Your task to perform on an android device: Clear the cart on target. Add "razer blade" to the cart on target Image 0: 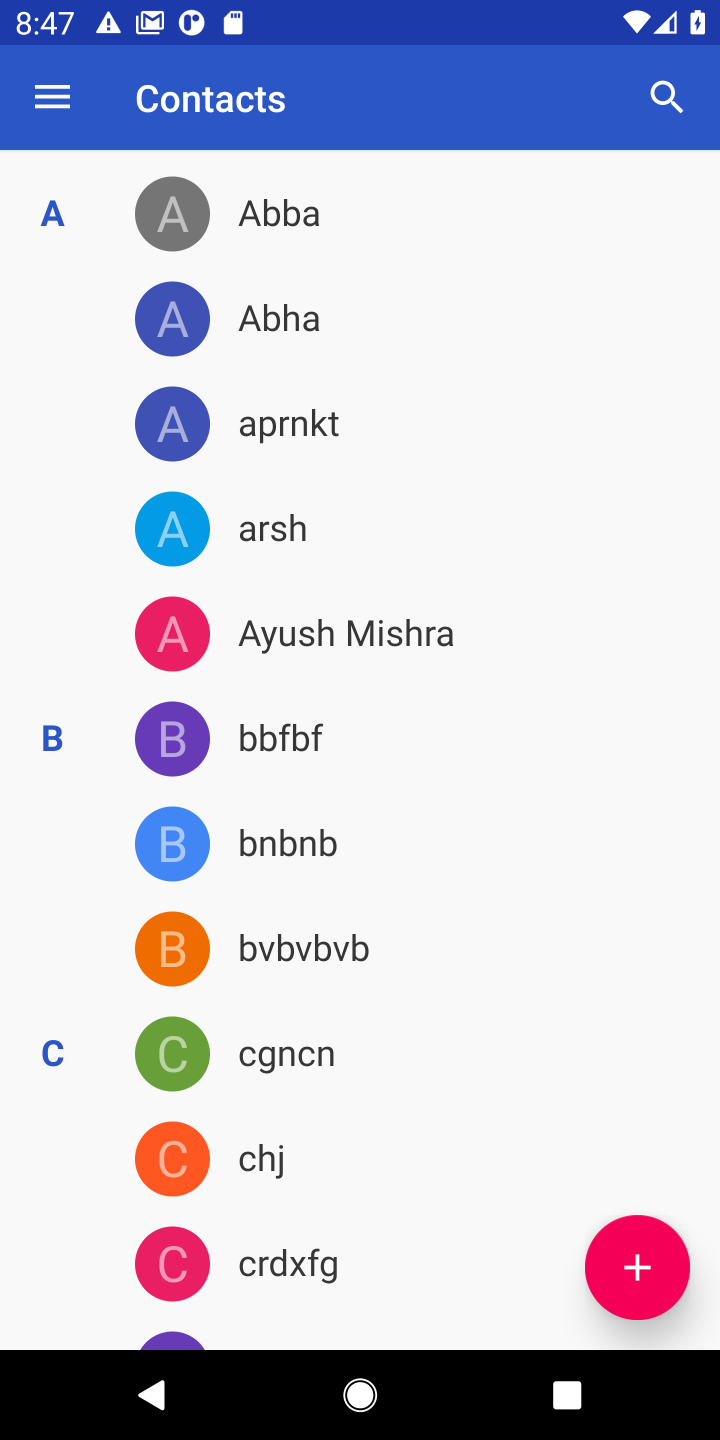
Step 0: press home button
Your task to perform on an android device: Clear the cart on target. Add "razer blade" to the cart on target Image 1: 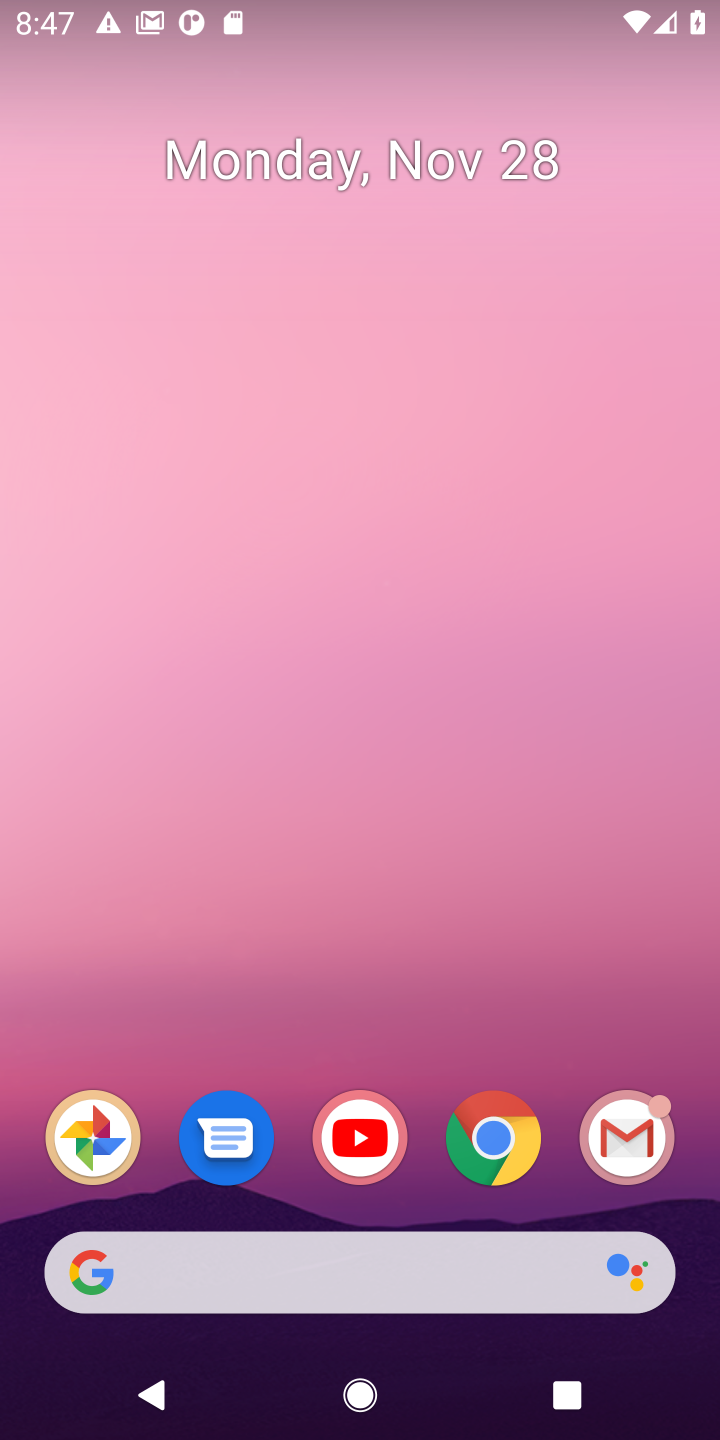
Step 1: click (502, 1157)
Your task to perform on an android device: Clear the cart on target. Add "razer blade" to the cart on target Image 2: 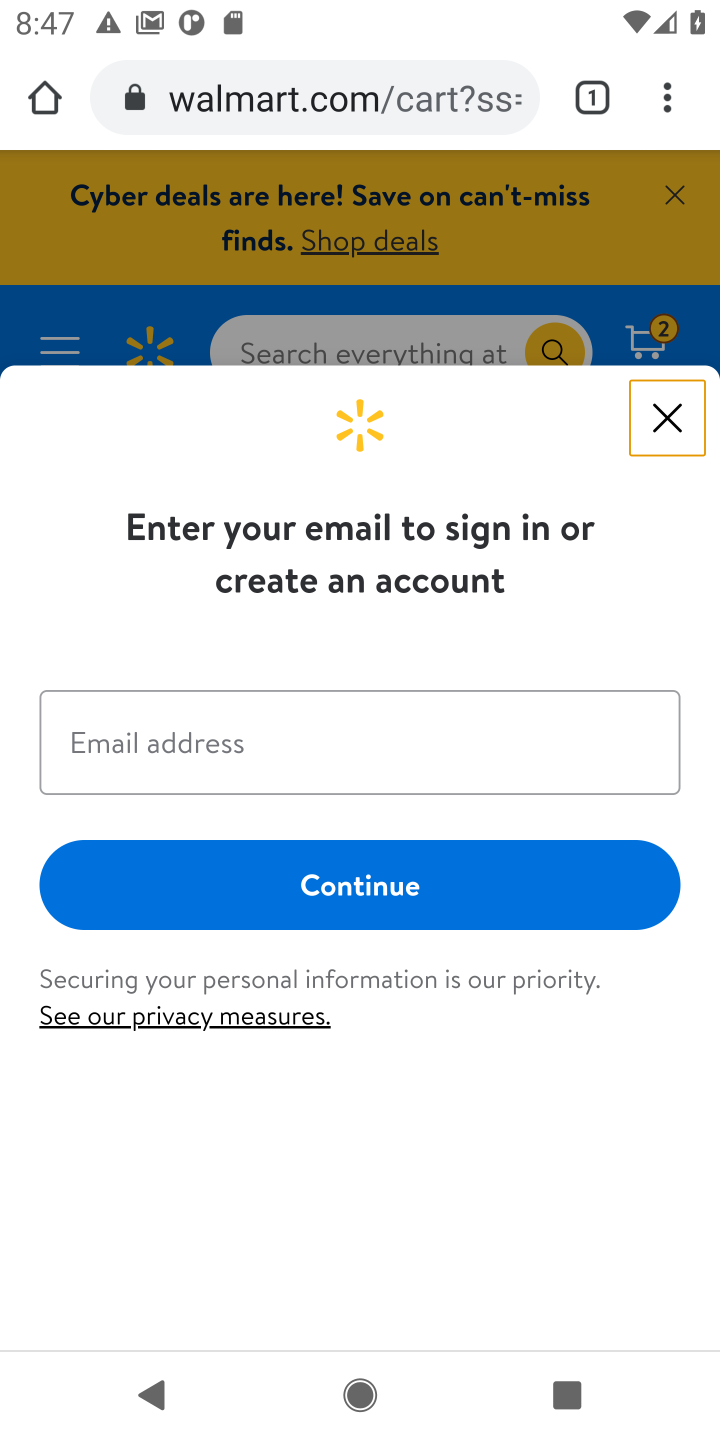
Step 2: click (301, 115)
Your task to perform on an android device: Clear the cart on target. Add "razer blade" to the cart on target Image 3: 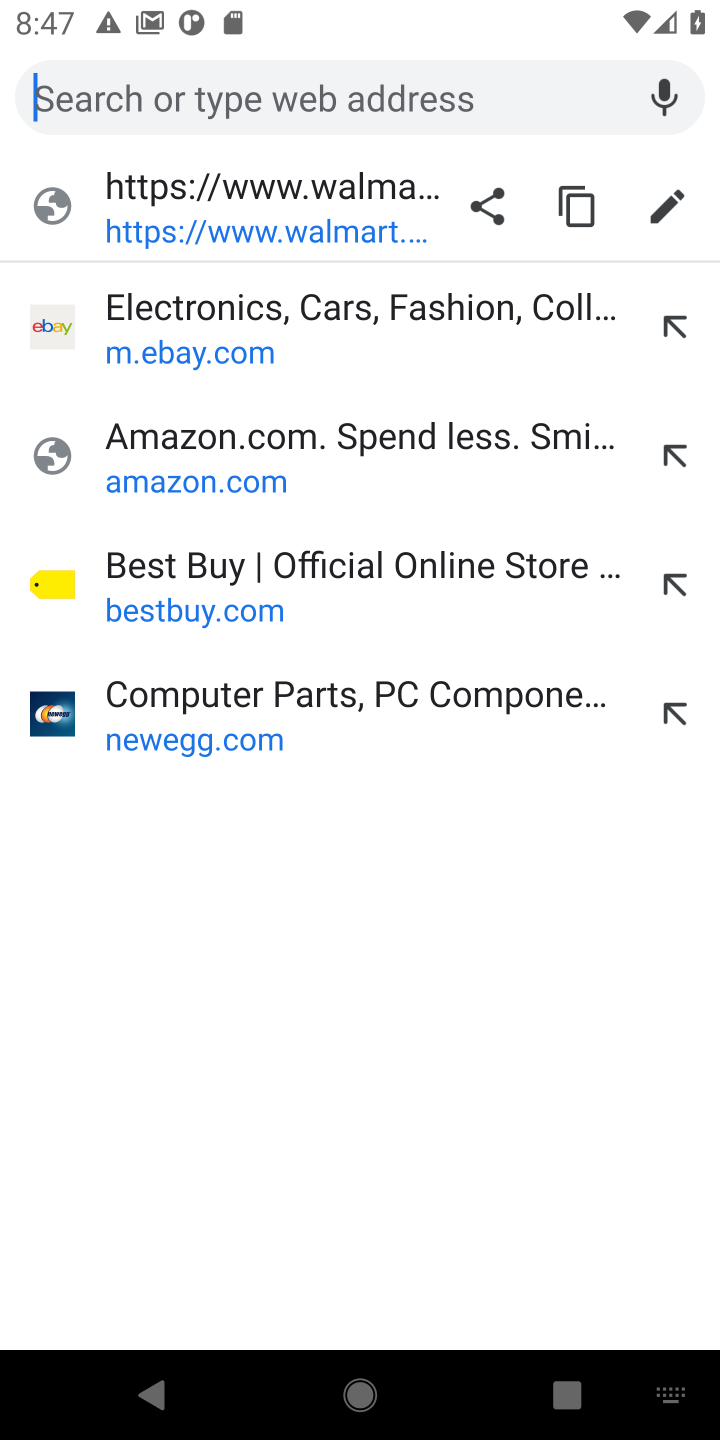
Step 3: type "target.com"
Your task to perform on an android device: Clear the cart on target. Add "razer blade" to the cart on target Image 4: 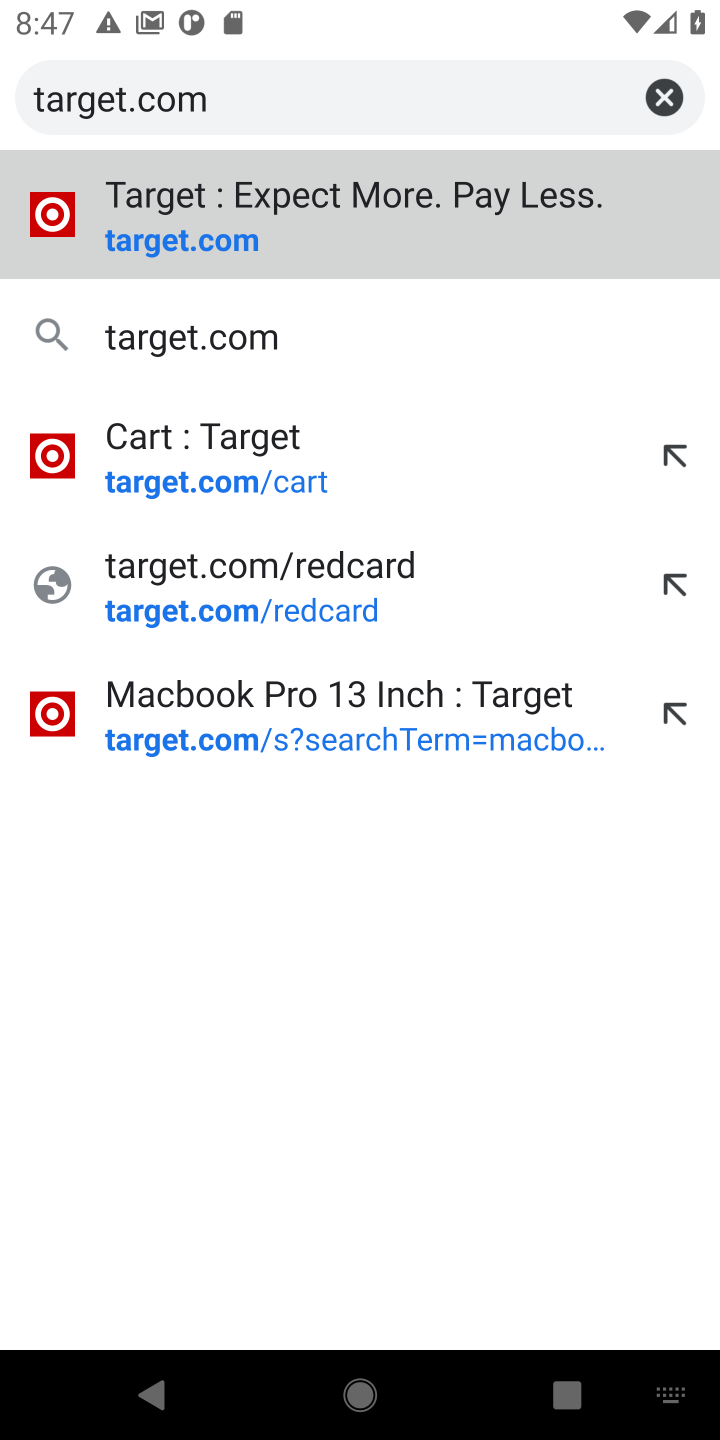
Step 4: click (148, 244)
Your task to perform on an android device: Clear the cart on target. Add "razer blade" to the cart on target Image 5: 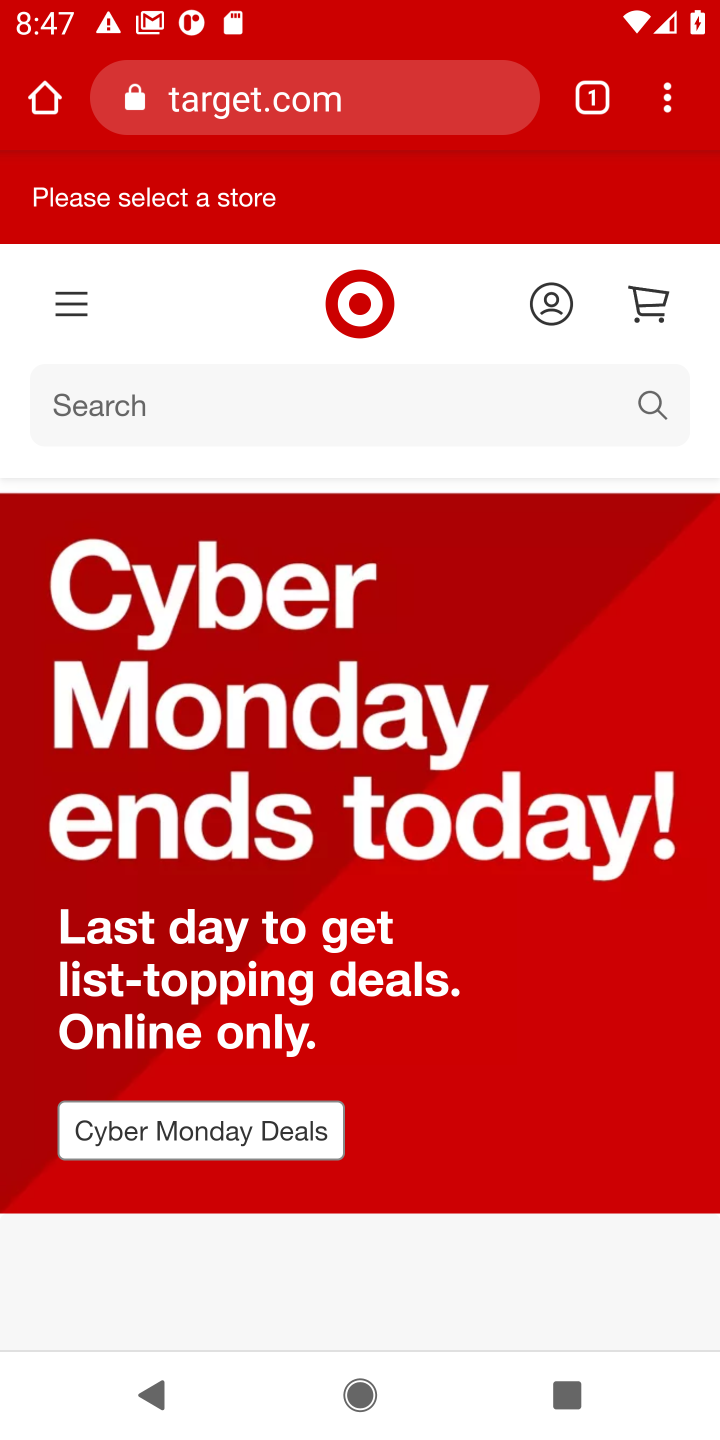
Step 5: click (655, 294)
Your task to perform on an android device: Clear the cart on target. Add "razer blade" to the cart on target Image 6: 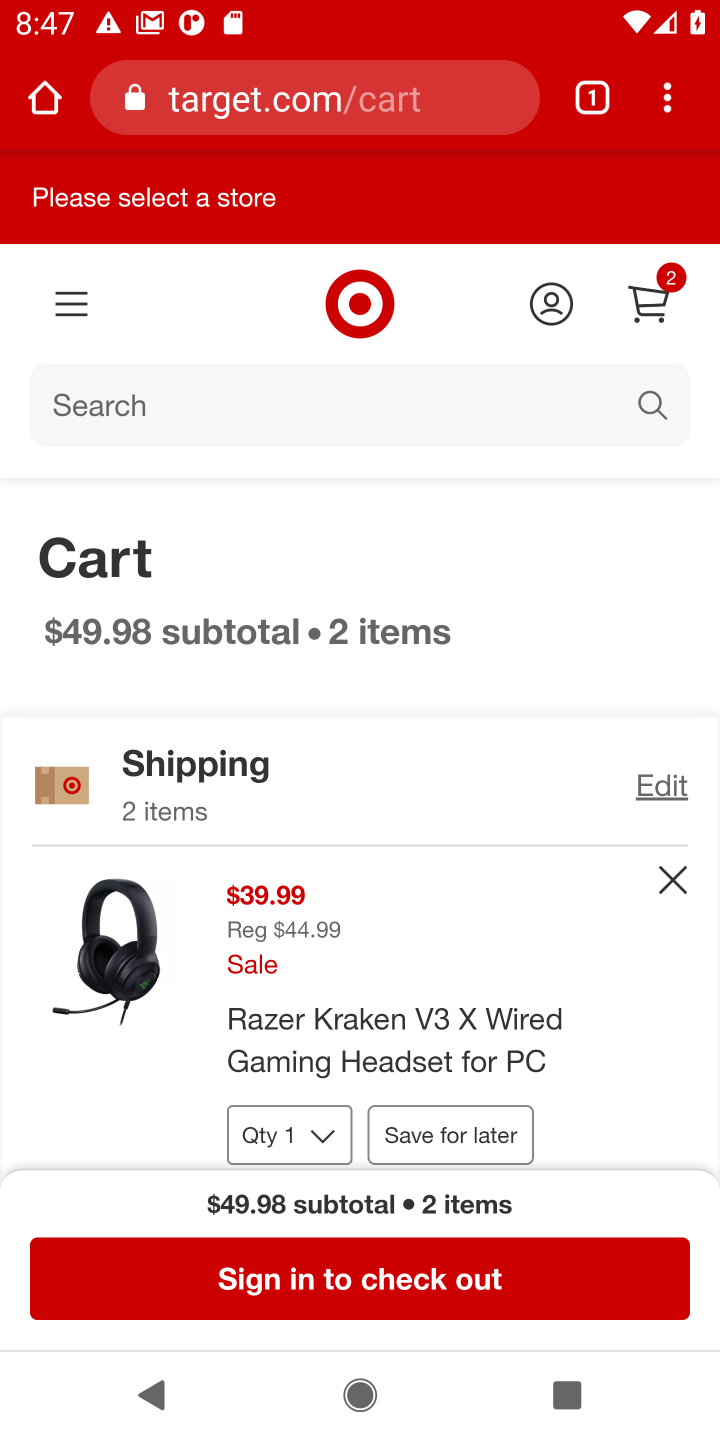
Step 6: click (675, 877)
Your task to perform on an android device: Clear the cart on target. Add "razer blade" to the cart on target Image 7: 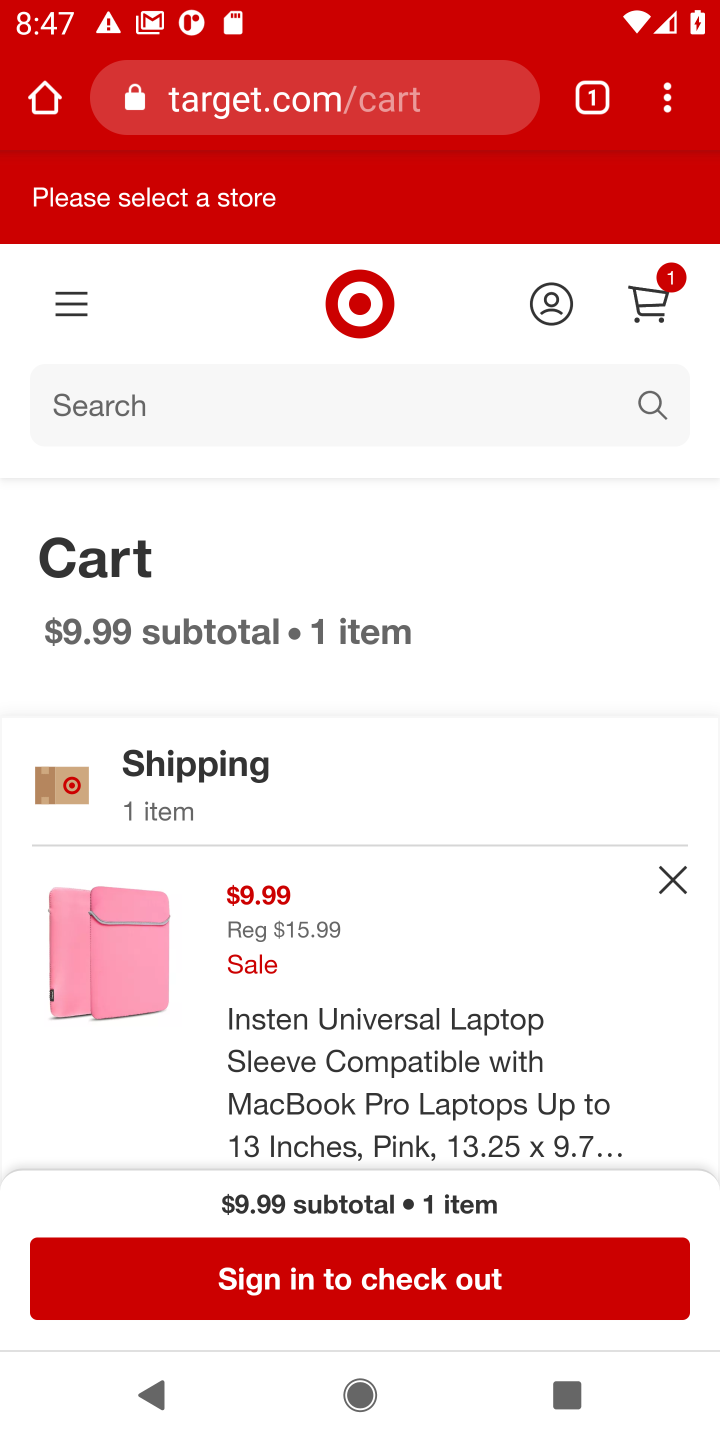
Step 7: click (675, 877)
Your task to perform on an android device: Clear the cart on target. Add "razer blade" to the cart on target Image 8: 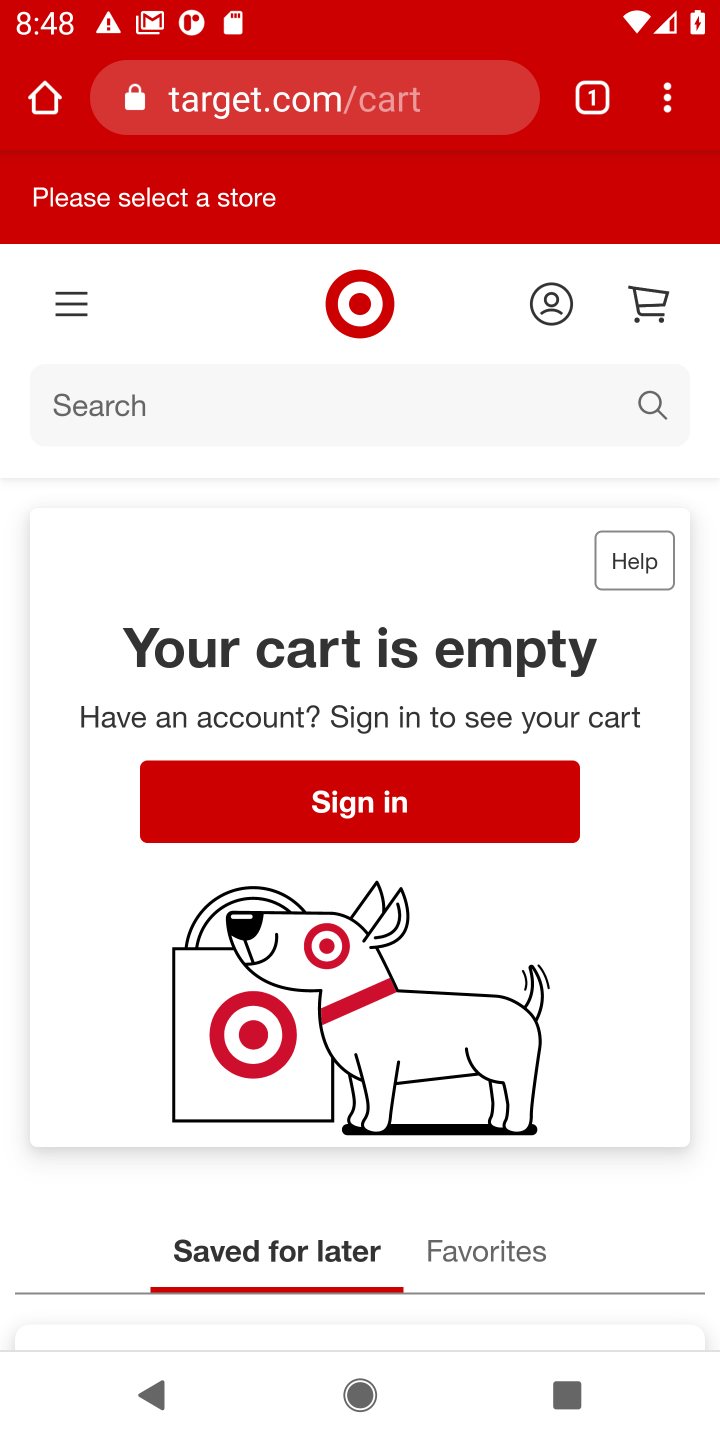
Step 8: click (96, 410)
Your task to perform on an android device: Clear the cart on target. Add "razer blade" to the cart on target Image 9: 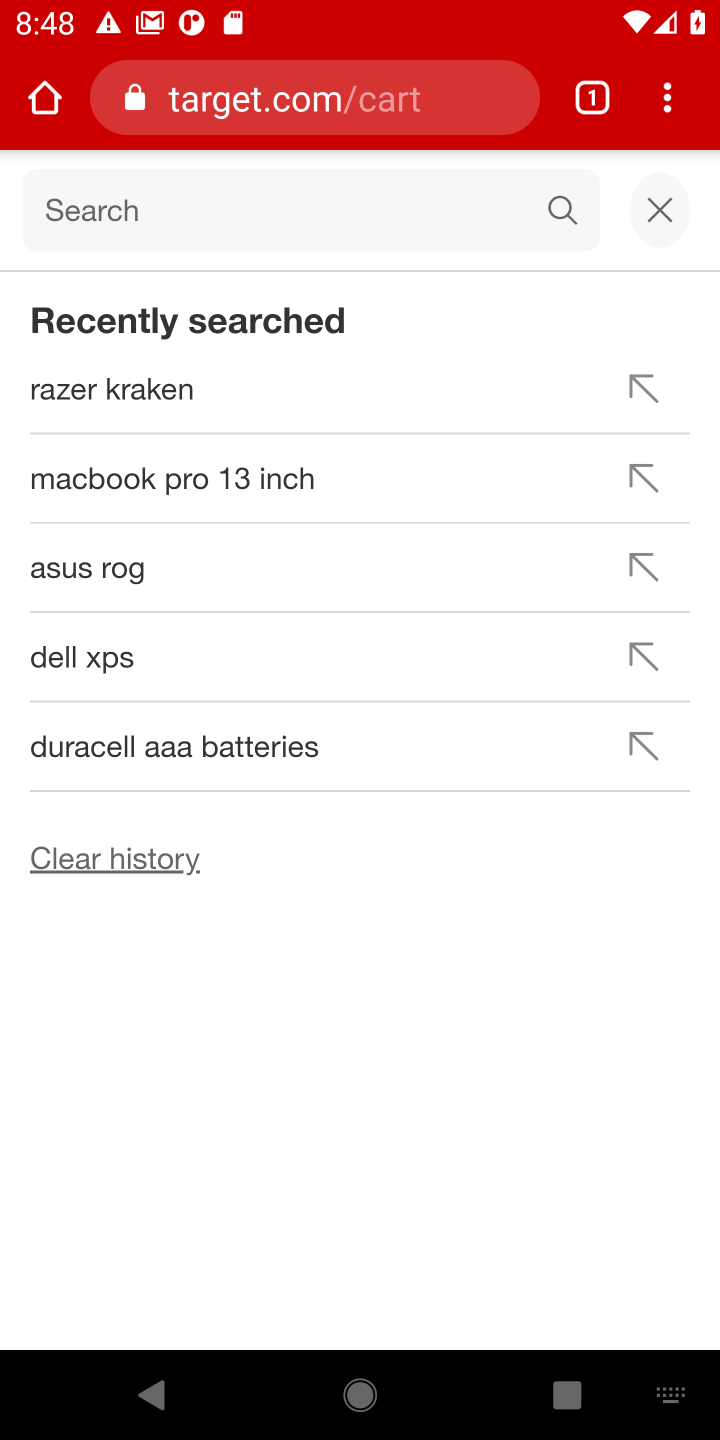
Step 9: type "razer blade"
Your task to perform on an android device: Clear the cart on target. Add "razer blade" to the cart on target Image 10: 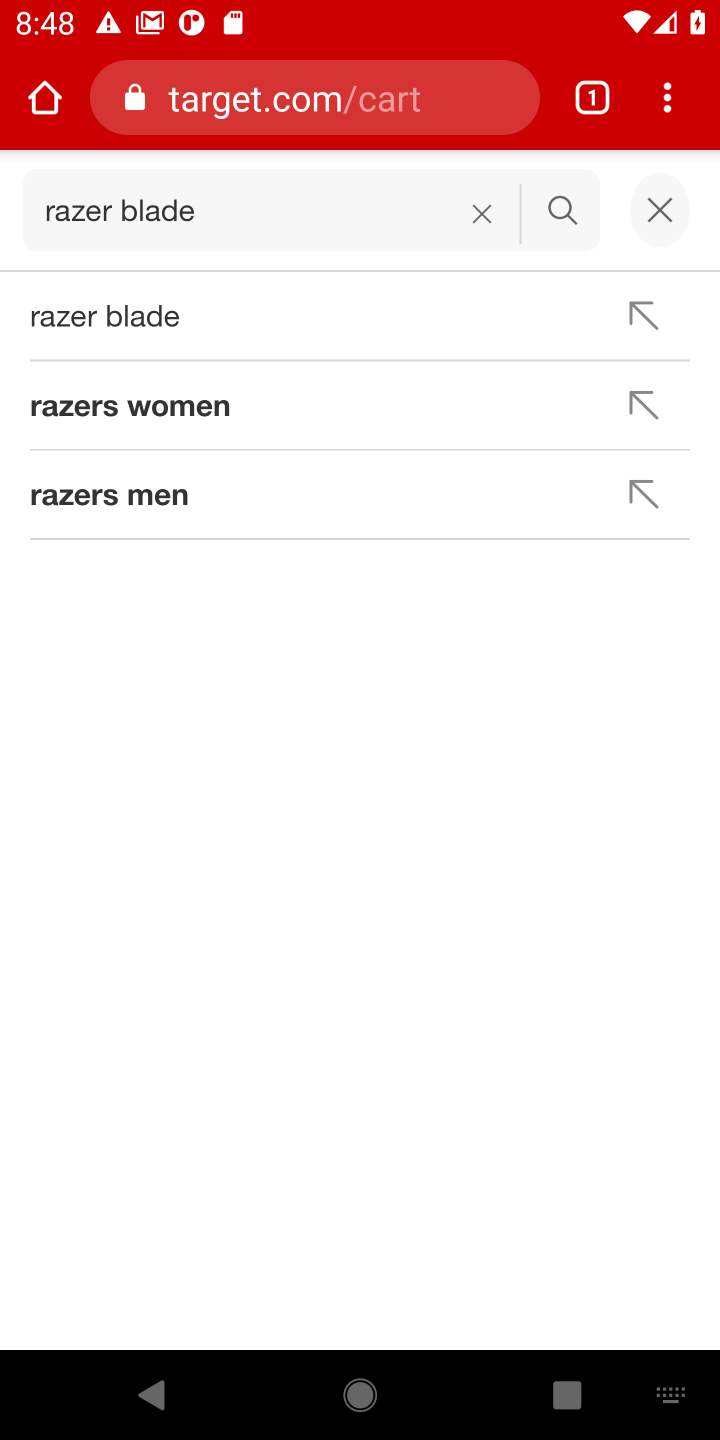
Step 10: click (139, 328)
Your task to perform on an android device: Clear the cart on target. Add "razer blade" to the cart on target Image 11: 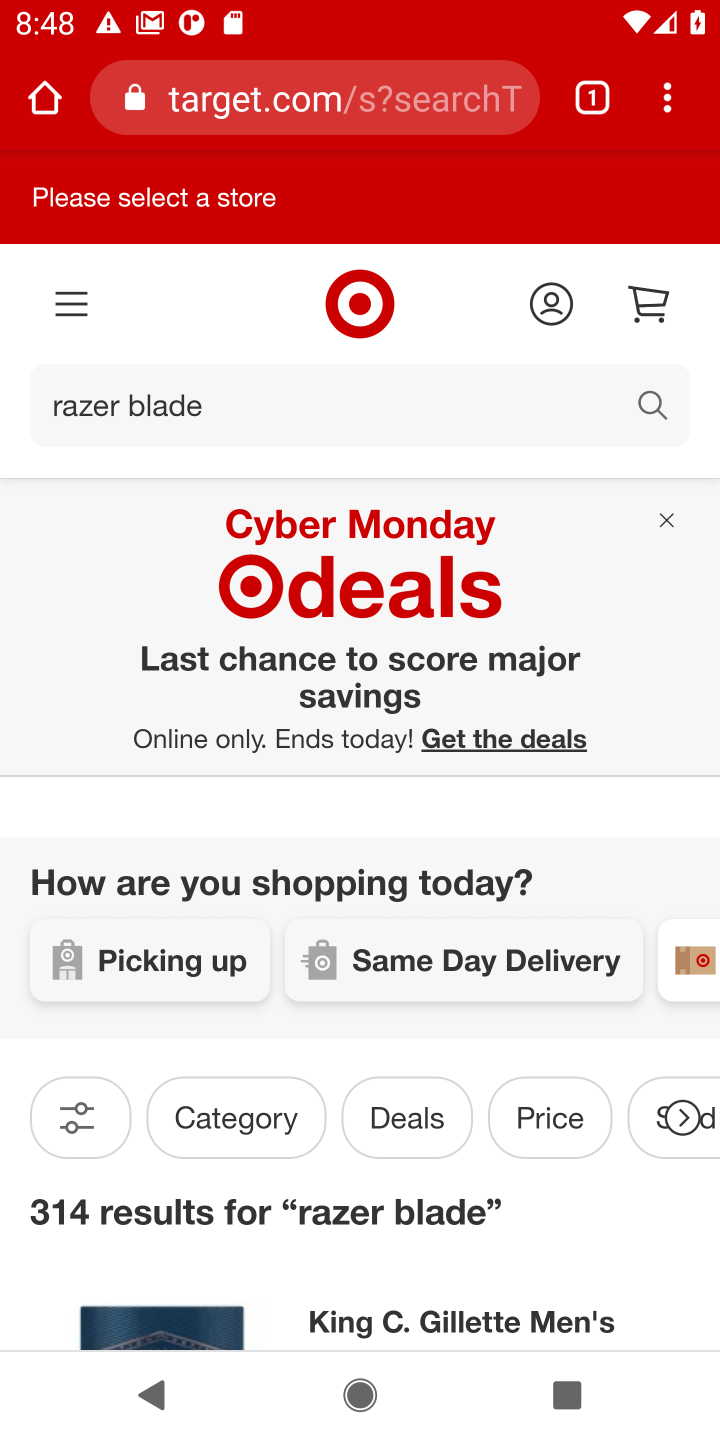
Step 11: task complete